Your task to perform on an android device: make emails show in primary in the gmail app Image 0: 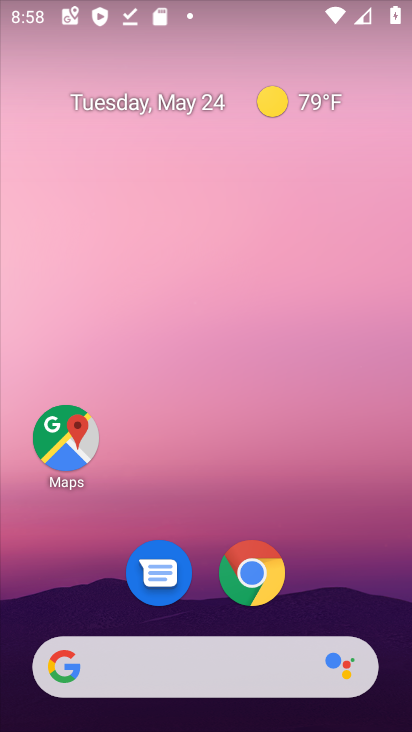
Step 0: drag from (321, 676) to (186, 184)
Your task to perform on an android device: make emails show in primary in the gmail app Image 1: 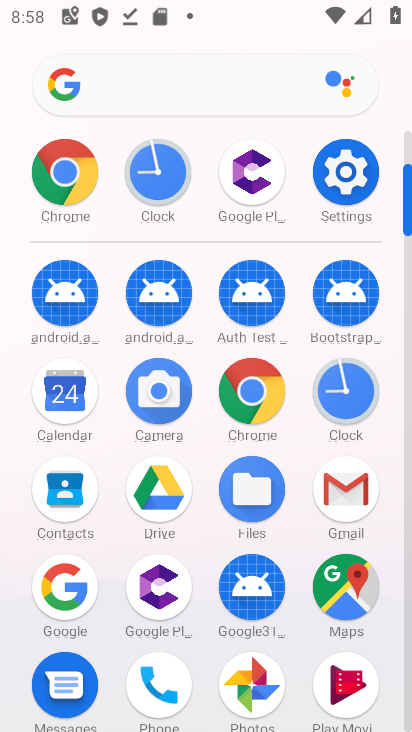
Step 1: click (341, 482)
Your task to perform on an android device: make emails show in primary in the gmail app Image 2: 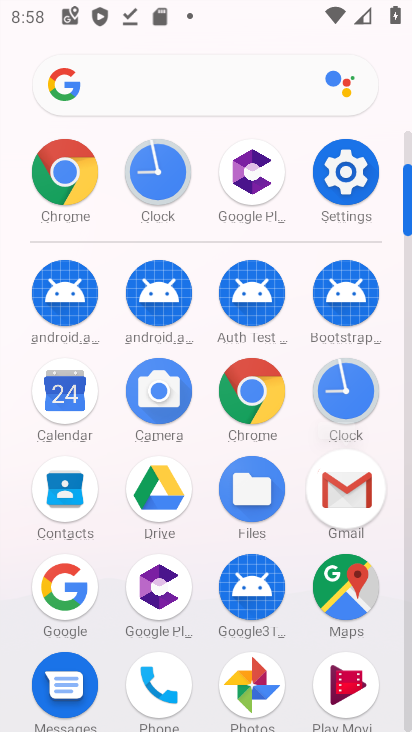
Step 2: click (353, 481)
Your task to perform on an android device: make emails show in primary in the gmail app Image 3: 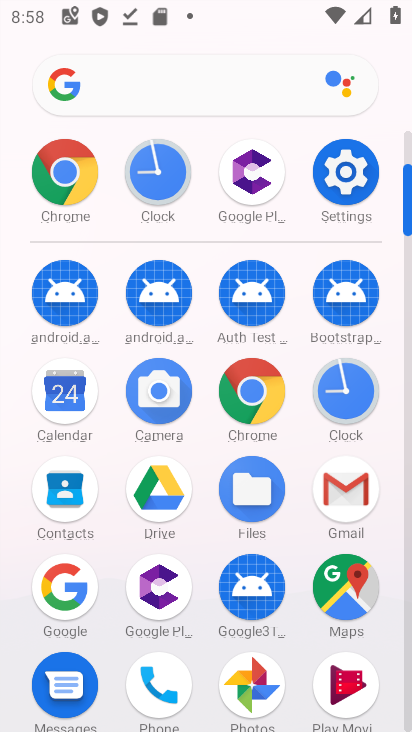
Step 3: click (355, 481)
Your task to perform on an android device: make emails show in primary in the gmail app Image 4: 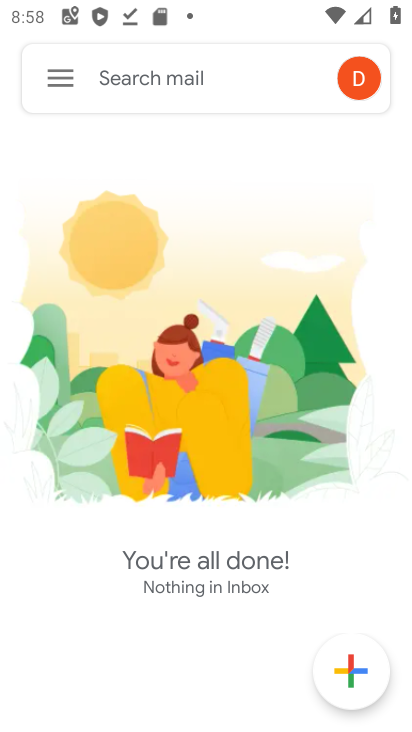
Step 4: press back button
Your task to perform on an android device: make emails show in primary in the gmail app Image 5: 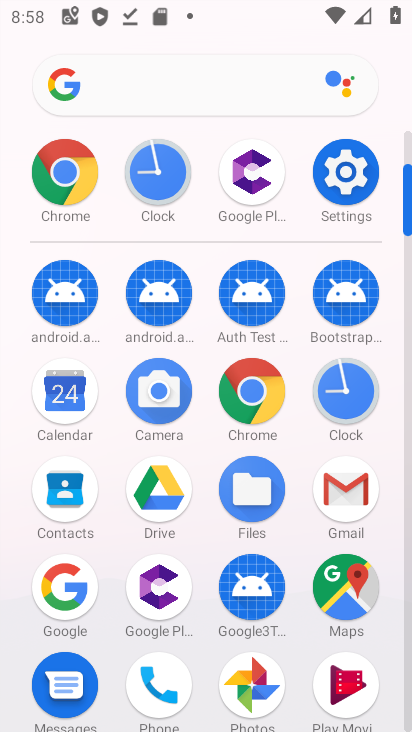
Step 5: click (337, 470)
Your task to perform on an android device: make emails show in primary in the gmail app Image 6: 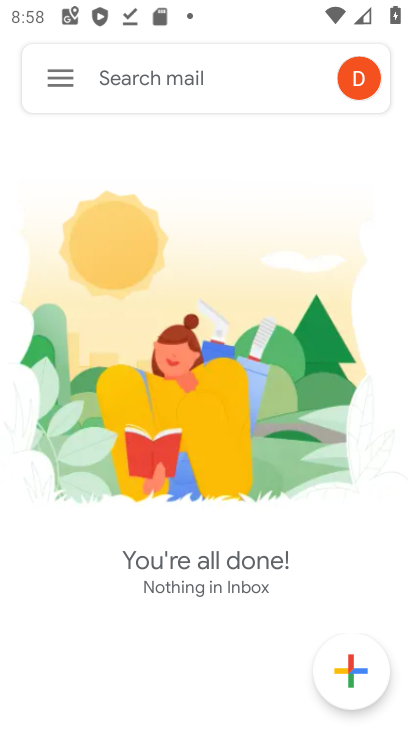
Step 6: click (58, 73)
Your task to perform on an android device: make emails show in primary in the gmail app Image 7: 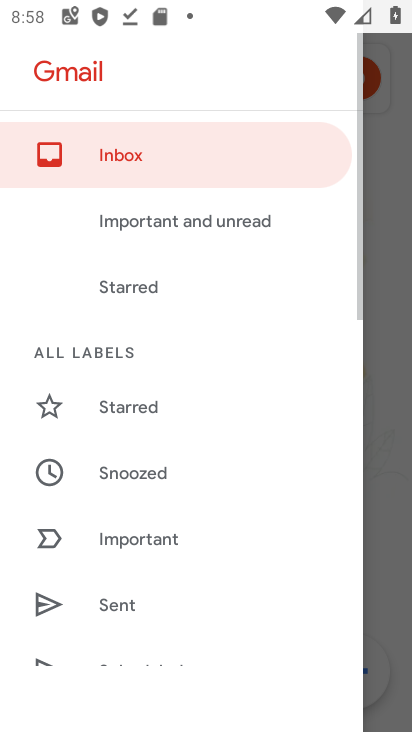
Step 7: drag from (195, 444) to (227, 165)
Your task to perform on an android device: make emails show in primary in the gmail app Image 8: 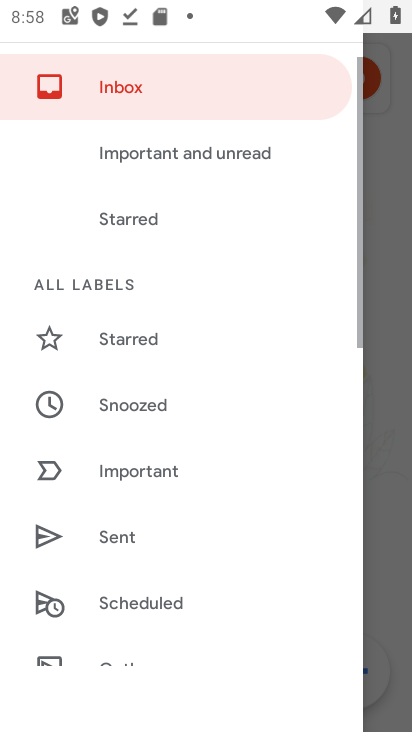
Step 8: drag from (244, 424) to (241, 116)
Your task to perform on an android device: make emails show in primary in the gmail app Image 9: 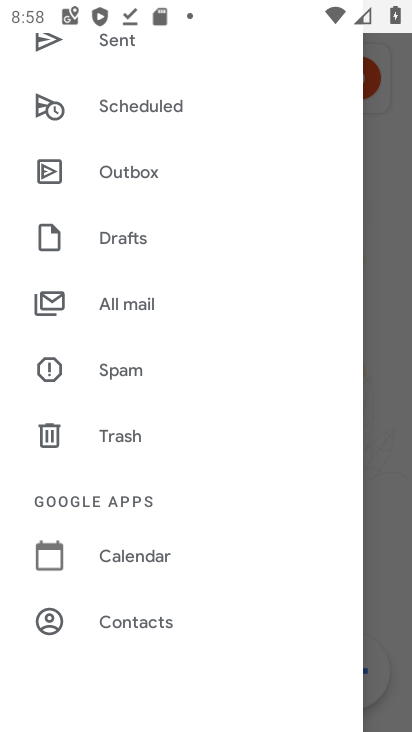
Step 9: drag from (147, 562) to (115, 140)
Your task to perform on an android device: make emails show in primary in the gmail app Image 10: 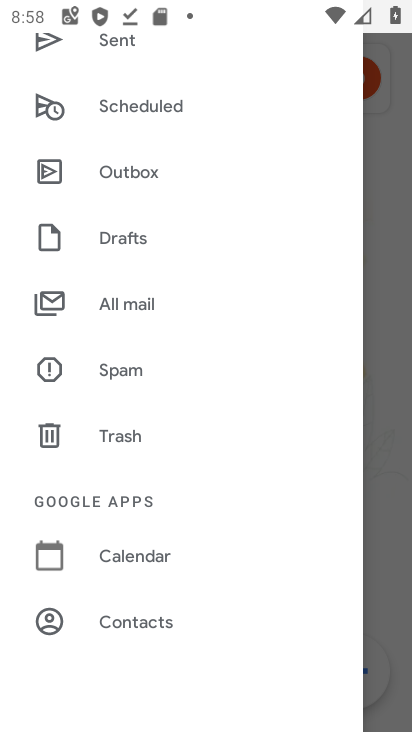
Step 10: drag from (176, 556) to (190, 116)
Your task to perform on an android device: make emails show in primary in the gmail app Image 11: 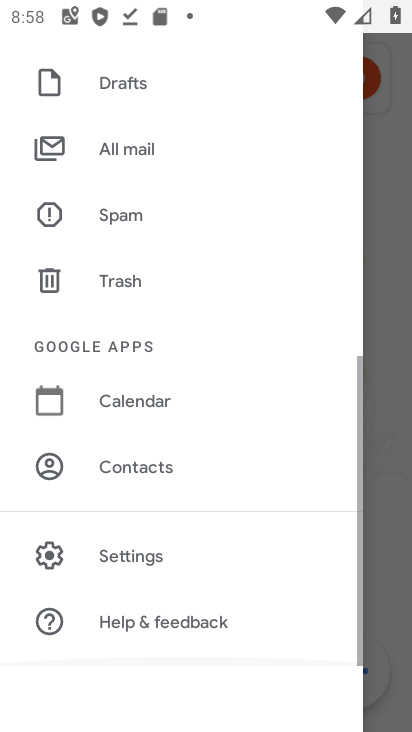
Step 11: drag from (239, 435) to (239, 187)
Your task to perform on an android device: make emails show in primary in the gmail app Image 12: 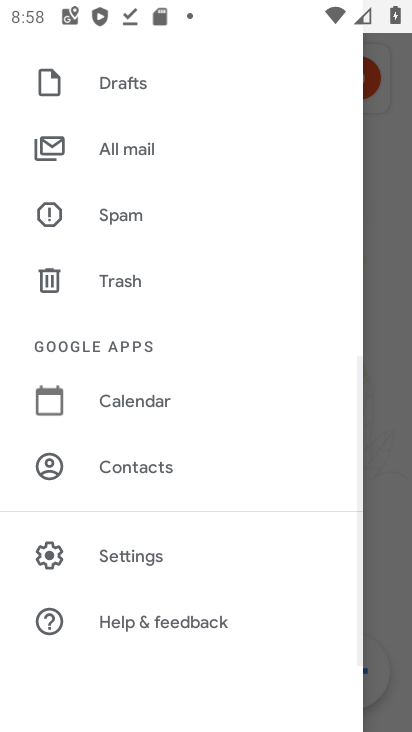
Step 12: click (128, 551)
Your task to perform on an android device: make emails show in primary in the gmail app Image 13: 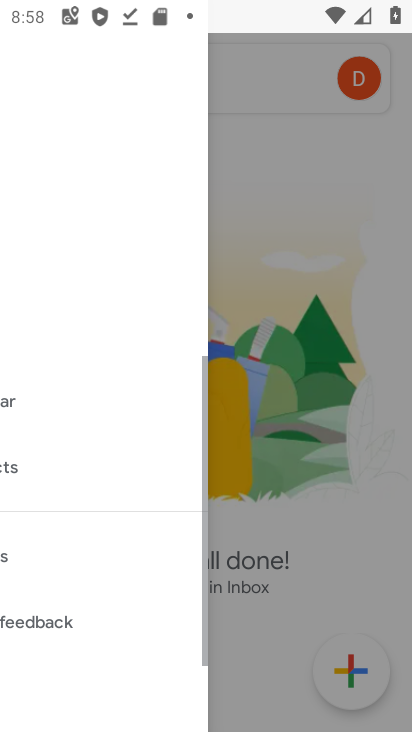
Step 13: click (145, 550)
Your task to perform on an android device: make emails show in primary in the gmail app Image 14: 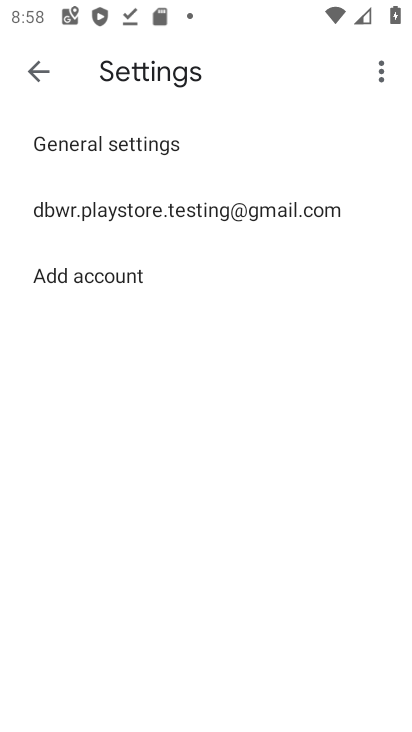
Step 14: click (139, 213)
Your task to perform on an android device: make emails show in primary in the gmail app Image 15: 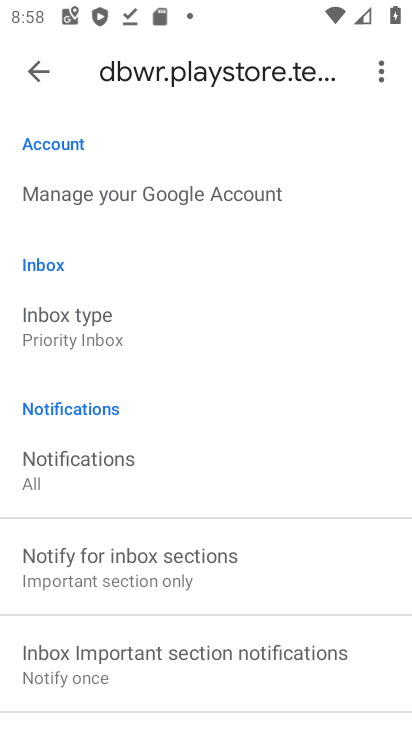
Step 15: click (75, 331)
Your task to perform on an android device: make emails show in primary in the gmail app Image 16: 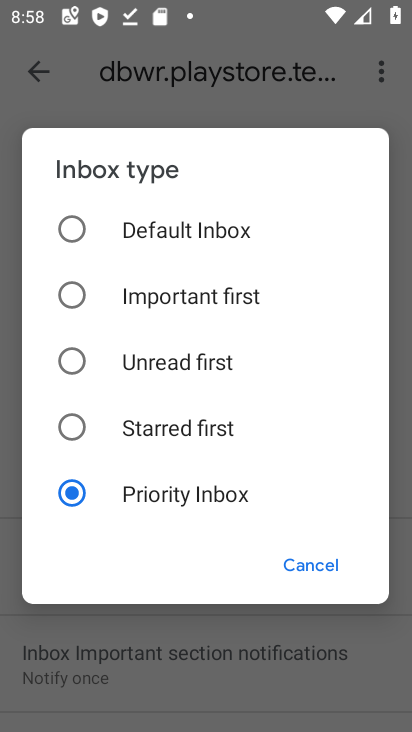
Step 16: click (51, 212)
Your task to perform on an android device: make emails show in primary in the gmail app Image 17: 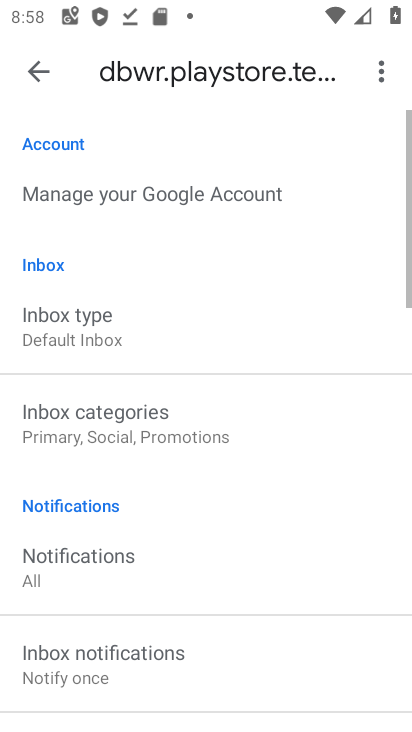
Step 17: click (64, 234)
Your task to perform on an android device: make emails show in primary in the gmail app Image 18: 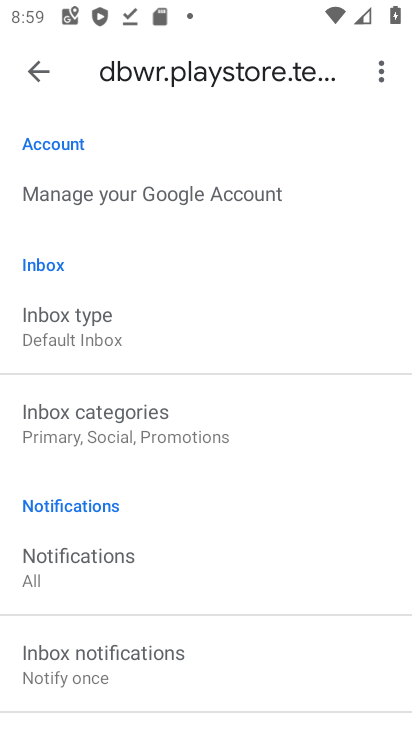
Step 18: click (90, 433)
Your task to perform on an android device: make emails show in primary in the gmail app Image 19: 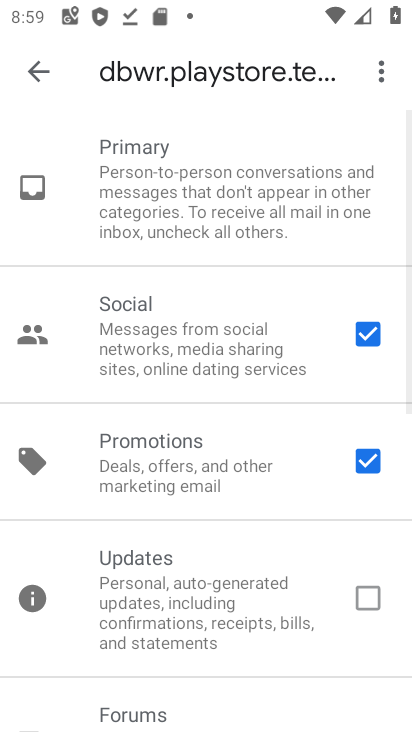
Step 19: click (127, 185)
Your task to perform on an android device: make emails show in primary in the gmail app Image 20: 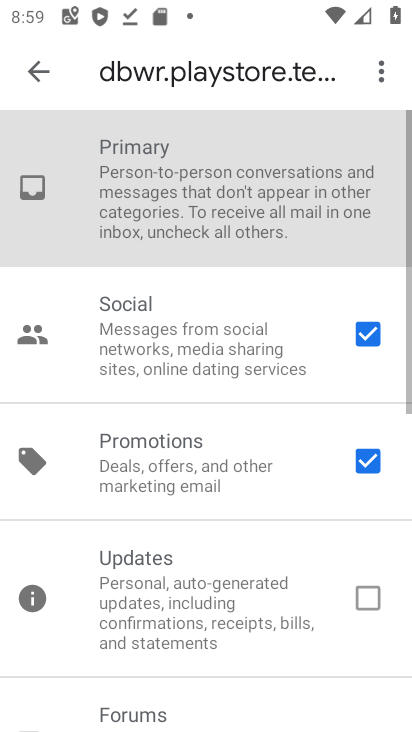
Step 20: click (130, 184)
Your task to perform on an android device: make emails show in primary in the gmail app Image 21: 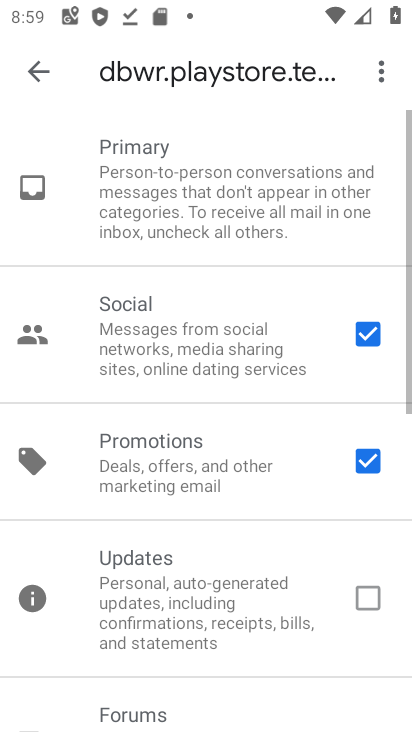
Step 21: click (131, 184)
Your task to perform on an android device: make emails show in primary in the gmail app Image 22: 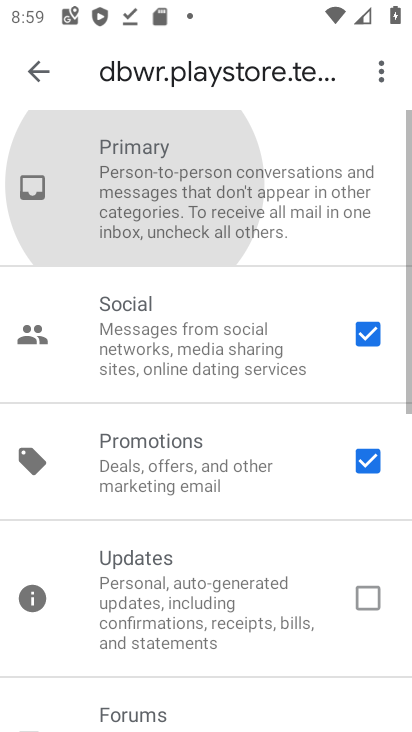
Step 22: click (132, 184)
Your task to perform on an android device: make emails show in primary in the gmail app Image 23: 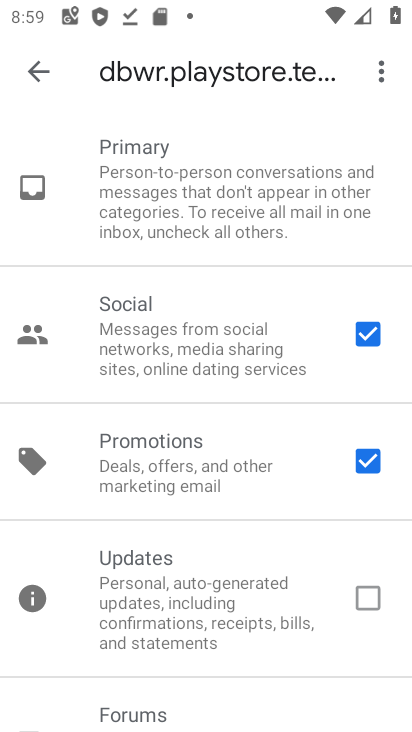
Step 23: task complete